Your task to perform on an android device: Open Google Chrome Image 0: 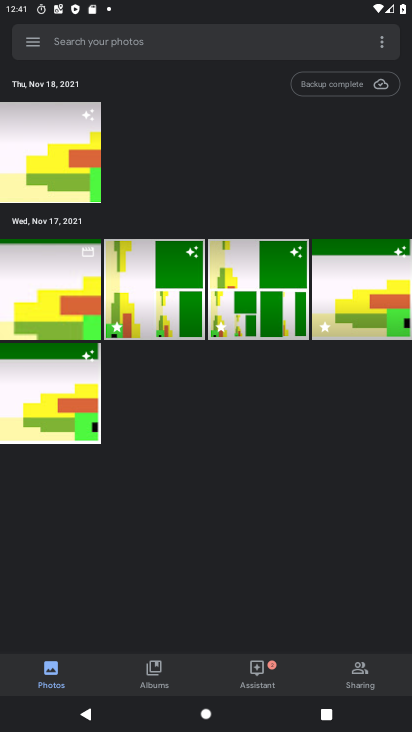
Step 0: press home button
Your task to perform on an android device: Open Google Chrome Image 1: 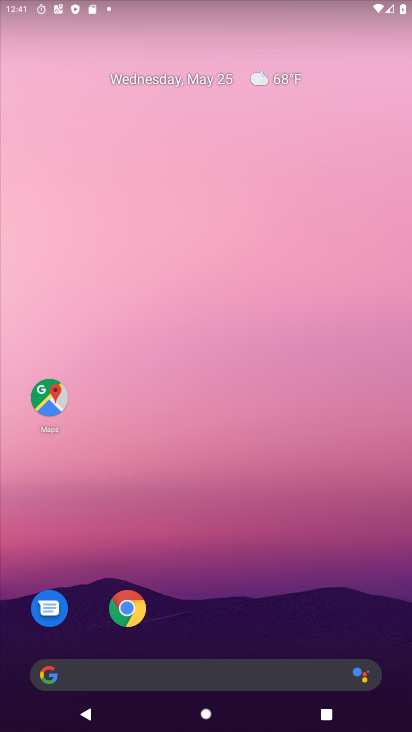
Step 1: click (121, 605)
Your task to perform on an android device: Open Google Chrome Image 2: 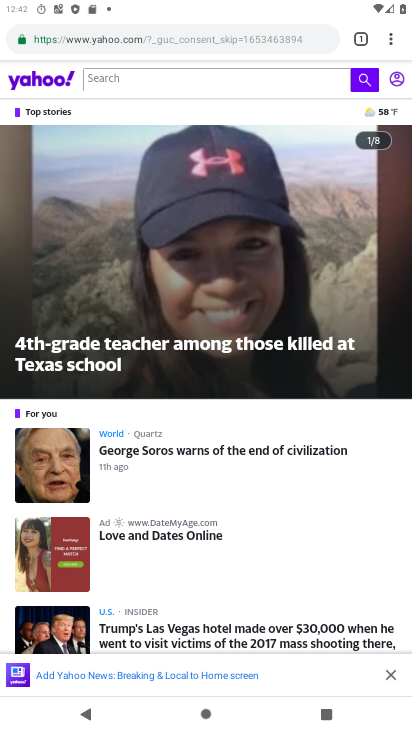
Step 2: task complete